Your task to perform on an android device: Open CNN.com Image 0: 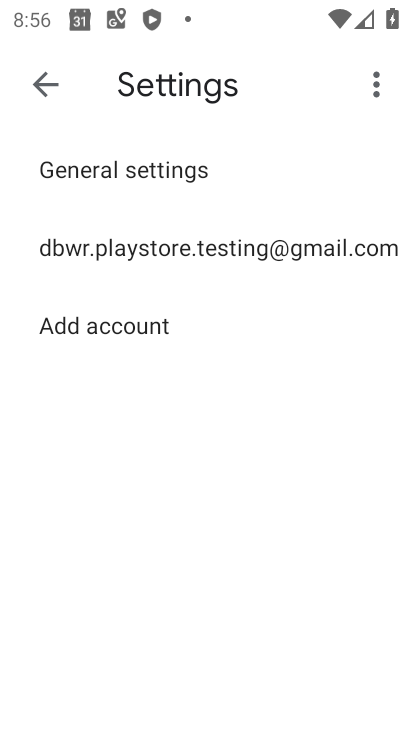
Step 0: press home button
Your task to perform on an android device: Open CNN.com Image 1: 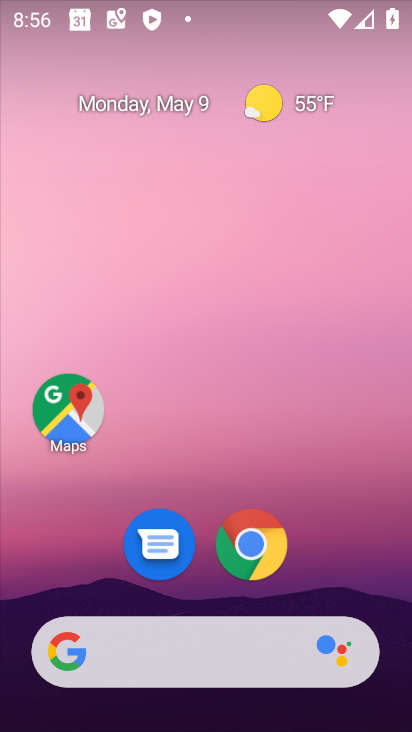
Step 1: click (278, 524)
Your task to perform on an android device: Open CNN.com Image 2: 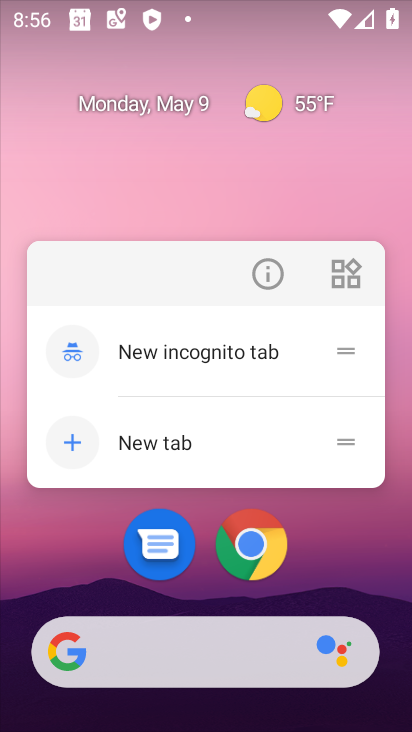
Step 2: click (277, 526)
Your task to perform on an android device: Open CNN.com Image 3: 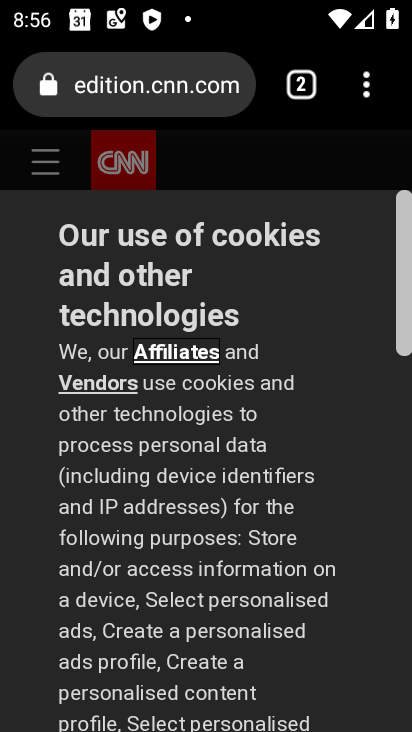
Step 3: task complete